Your task to perform on an android device: Open calendar and show me the fourth week of next month Image 0: 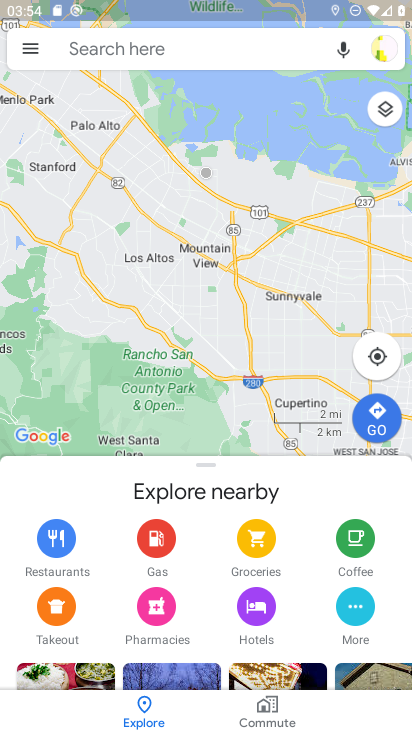
Step 0: press home button
Your task to perform on an android device: Open calendar and show me the fourth week of next month Image 1: 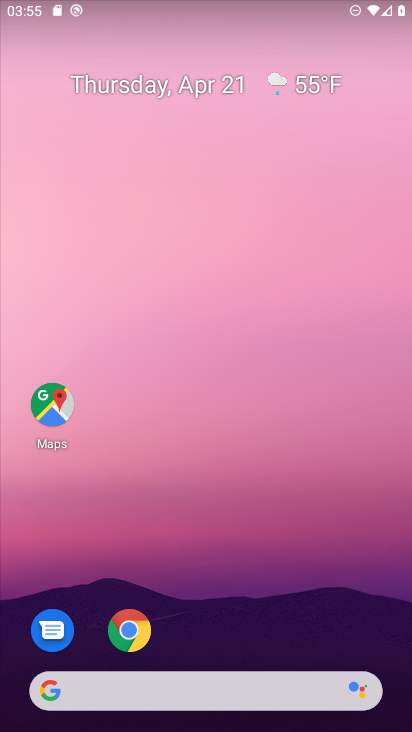
Step 1: drag from (241, 565) to (247, 99)
Your task to perform on an android device: Open calendar and show me the fourth week of next month Image 2: 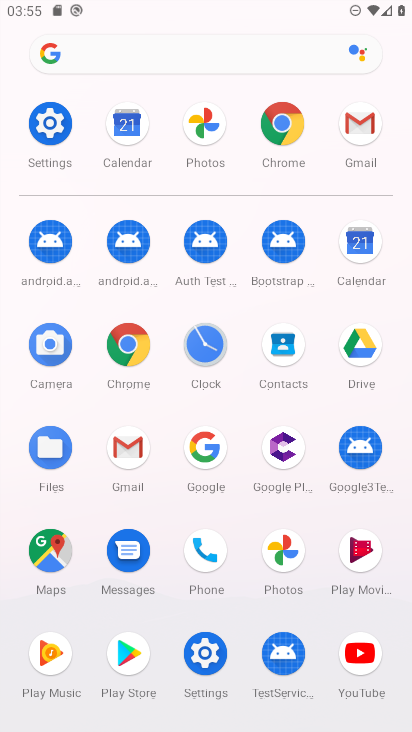
Step 2: click (66, 162)
Your task to perform on an android device: Open calendar and show me the fourth week of next month Image 3: 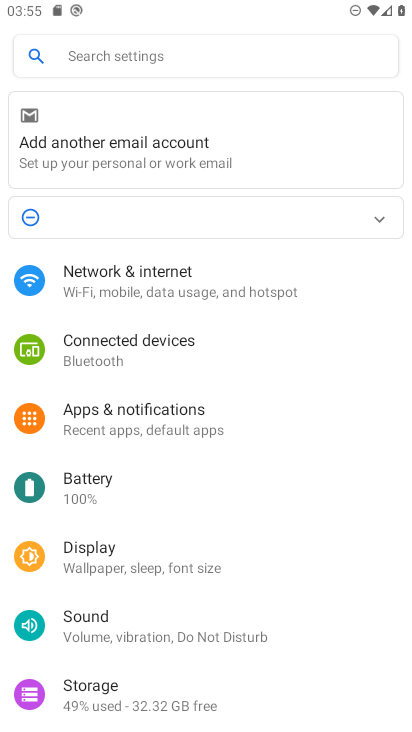
Step 3: drag from (267, 626) to (268, 453)
Your task to perform on an android device: Open calendar and show me the fourth week of next month Image 4: 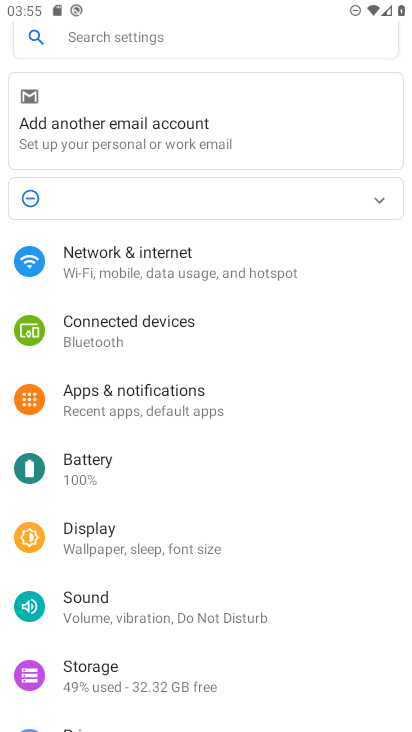
Step 4: press home button
Your task to perform on an android device: Open calendar and show me the fourth week of next month Image 5: 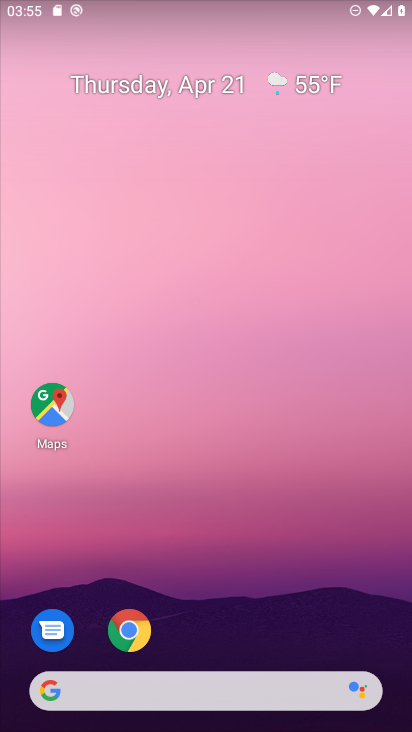
Step 5: drag from (208, 622) to (212, 151)
Your task to perform on an android device: Open calendar and show me the fourth week of next month Image 6: 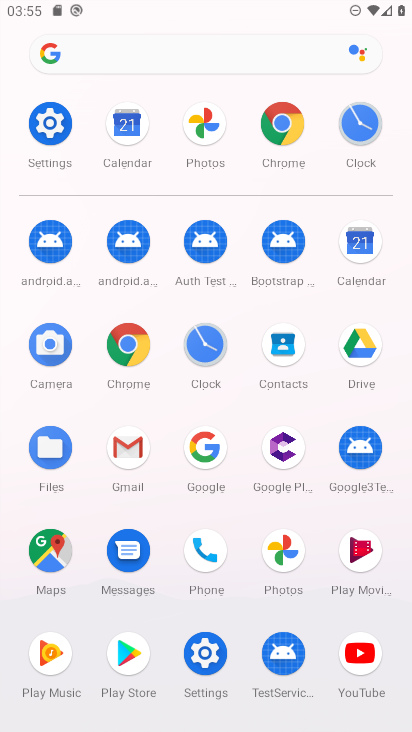
Step 6: click (52, 138)
Your task to perform on an android device: Open calendar and show me the fourth week of next month Image 7: 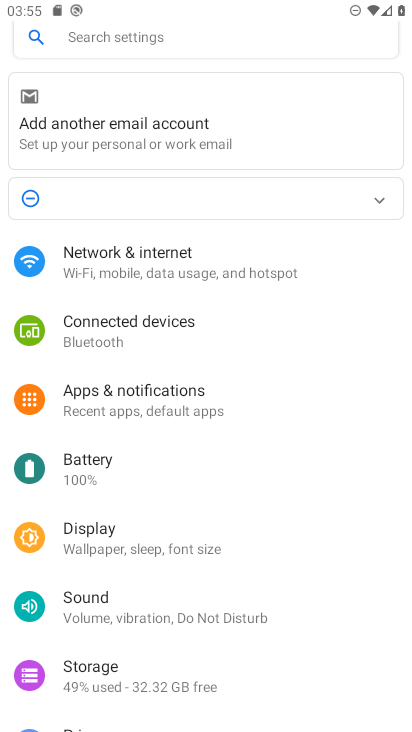
Step 7: press home button
Your task to perform on an android device: Open calendar and show me the fourth week of next month Image 8: 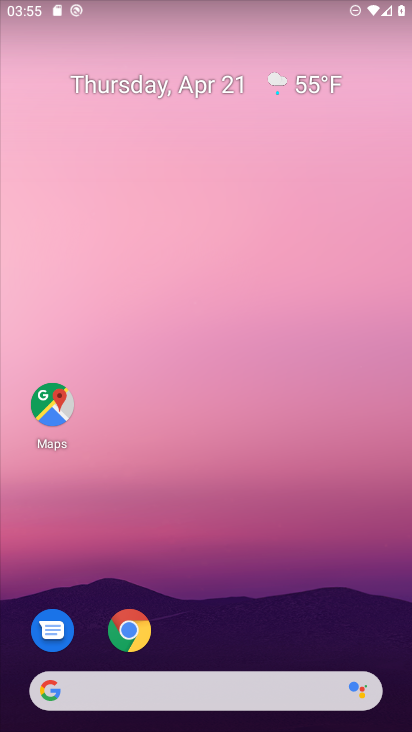
Step 8: drag from (230, 642) to (233, 385)
Your task to perform on an android device: Open calendar and show me the fourth week of next month Image 9: 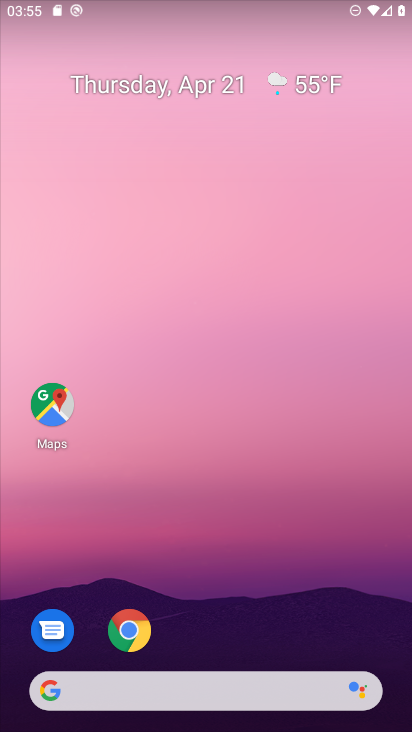
Step 9: drag from (250, 646) to (277, 34)
Your task to perform on an android device: Open calendar and show me the fourth week of next month Image 10: 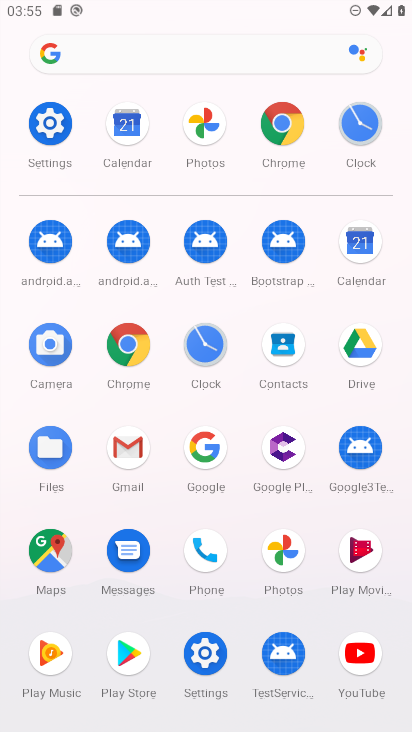
Step 10: click (129, 140)
Your task to perform on an android device: Open calendar and show me the fourth week of next month Image 11: 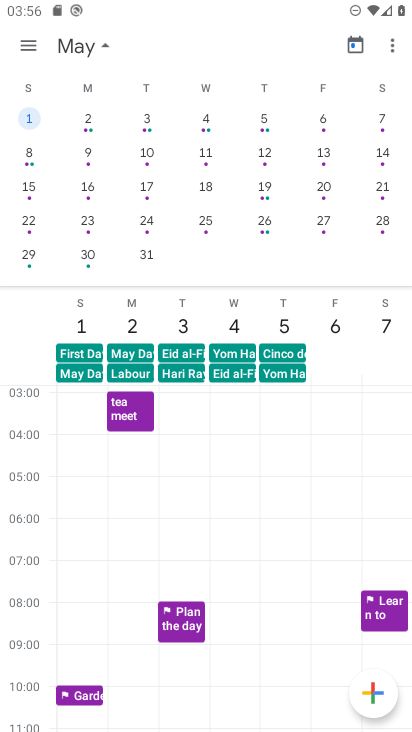
Step 11: click (198, 220)
Your task to perform on an android device: Open calendar and show me the fourth week of next month Image 12: 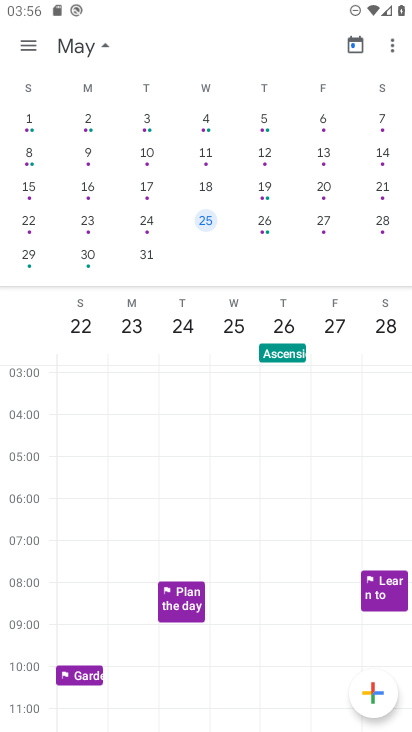
Step 12: task complete